Your task to perform on an android device: Open Chrome and go to settings Image 0: 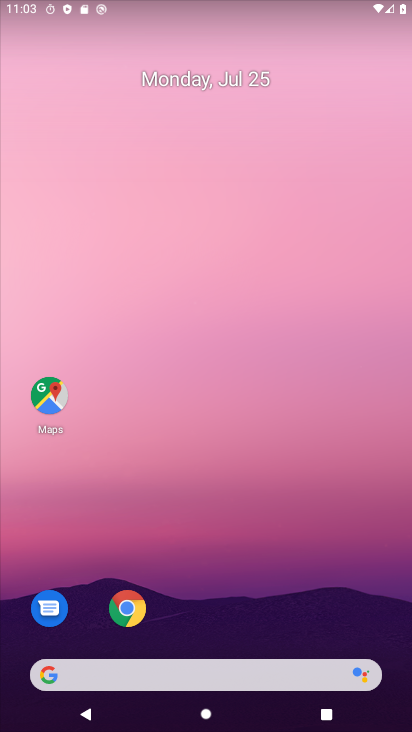
Step 0: drag from (266, 642) to (256, 2)
Your task to perform on an android device: Open Chrome and go to settings Image 1: 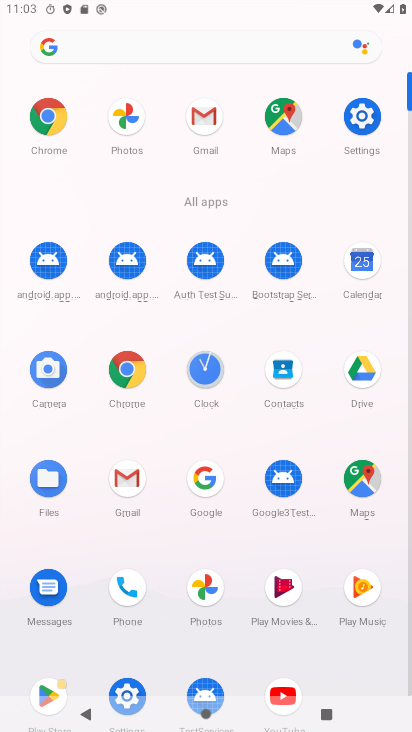
Step 1: click (45, 123)
Your task to perform on an android device: Open Chrome and go to settings Image 2: 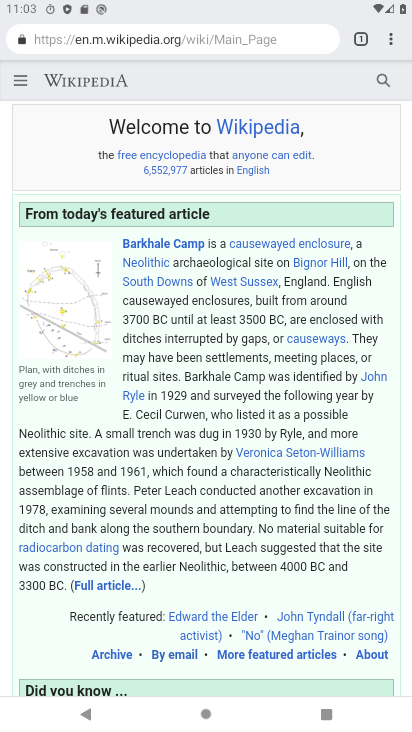
Step 2: task complete